Your task to perform on an android device: Go to Android settings Image 0: 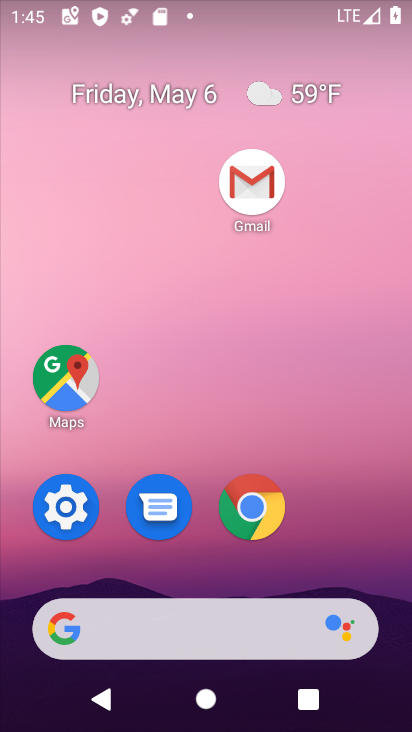
Step 0: click (66, 508)
Your task to perform on an android device: Go to Android settings Image 1: 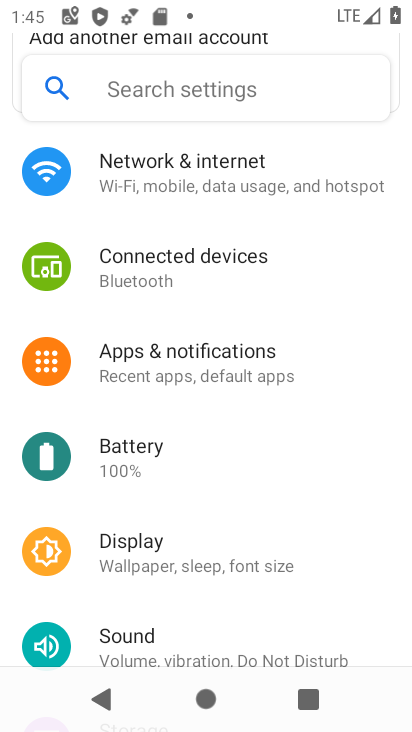
Step 1: drag from (198, 573) to (180, 317)
Your task to perform on an android device: Go to Android settings Image 2: 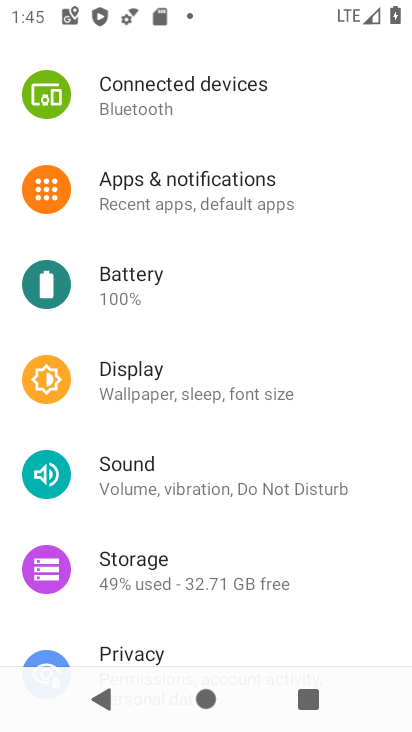
Step 2: drag from (205, 441) to (166, 149)
Your task to perform on an android device: Go to Android settings Image 3: 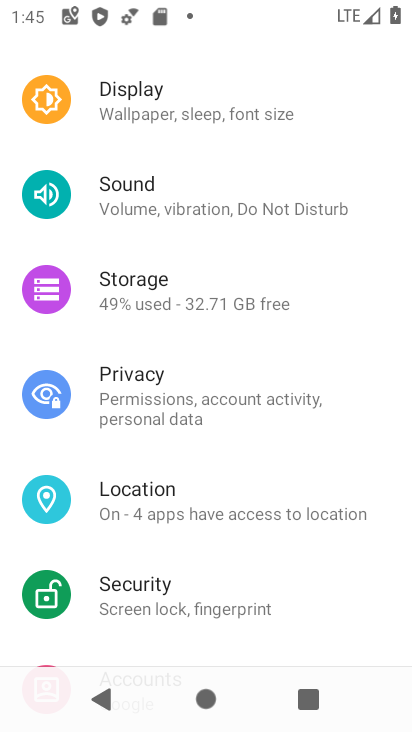
Step 3: drag from (220, 540) to (203, 231)
Your task to perform on an android device: Go to Android settings Image 4: 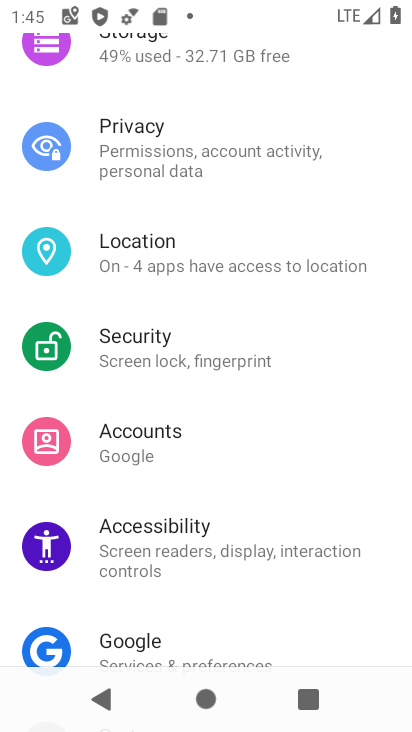
Step 4: drag from (219, 475) to (183, 114)
Your task to perform on an android device: Go to Android settings Image 5: 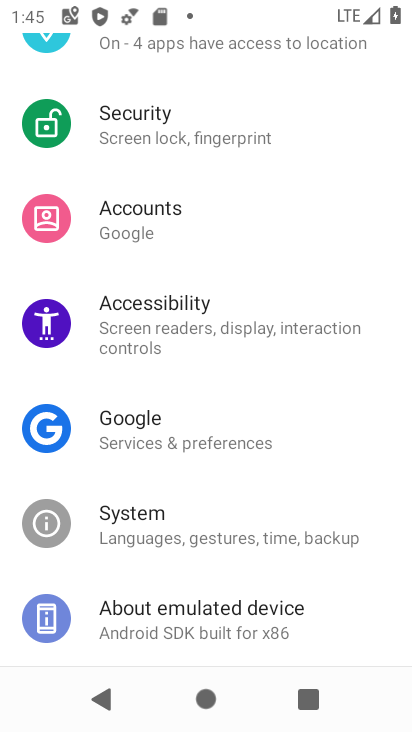
Step 5: click (199, 616)
Your task to perform on an android device: Go to Android settings Image 6: 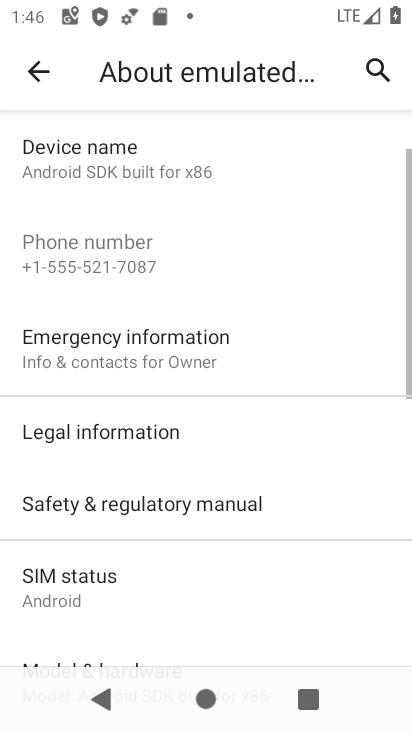
Step 6: drag from (216, 568) to (213, 343)
Your task to perform on an android device: Go to Android settings Image 7: 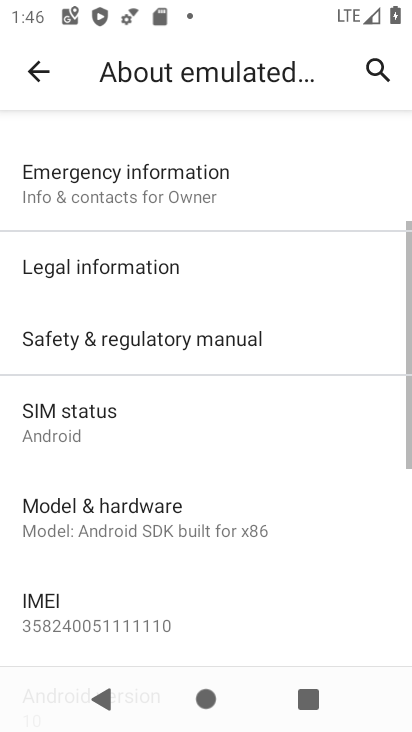
Step 7: drag from (244, 445) to (243, 197)
Your task to perform on an android device: Go to Android settings Image 8: 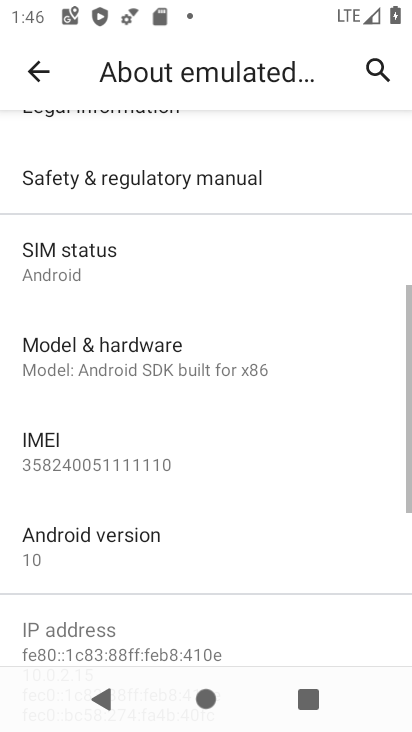
Step 8: click (121, 528)
Your task to perform on an android device: Go to Android settings Image 9: 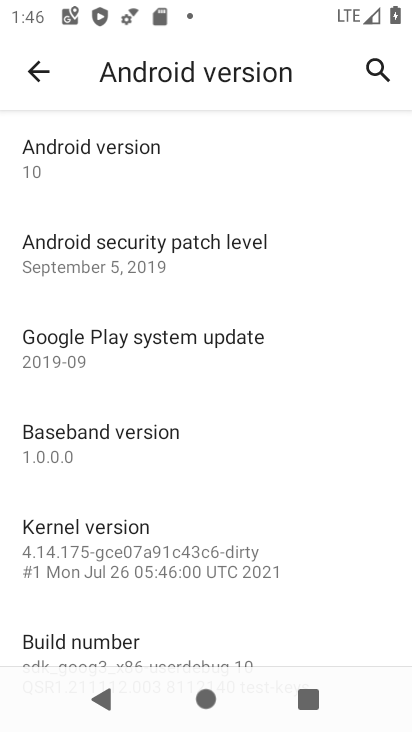
Step 9: task complete